Your task to perform on an android device: turn off sleep mode Image 0: 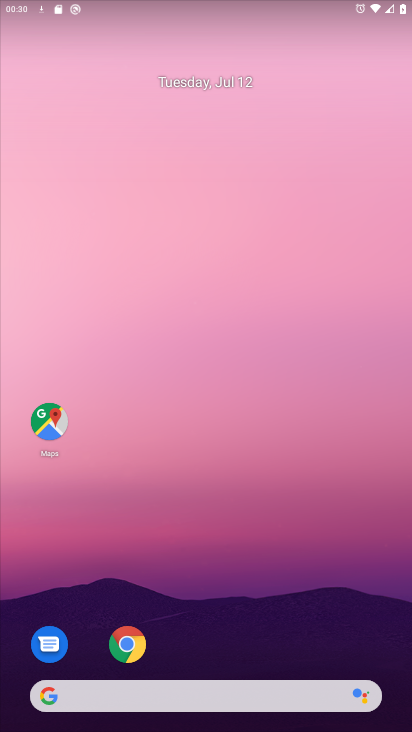
Step 0: drag from (154, 656) to (227, 208)
Your task to perform on an android device: turn off sleep mode Image 1: 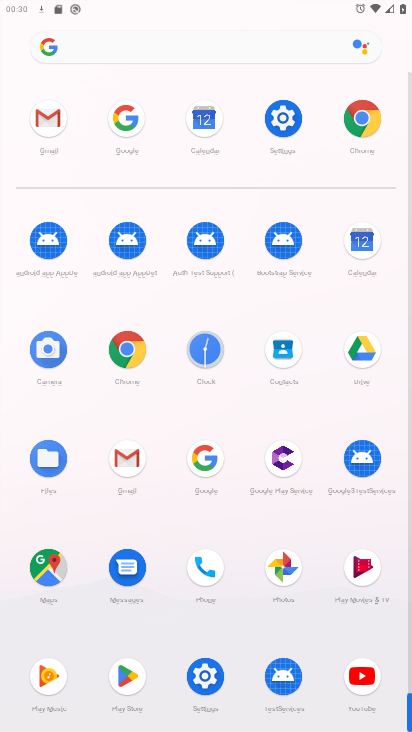
Step 1: click (267, 125)
Your task to perform on an android device: turn off sleep mode Image 2: 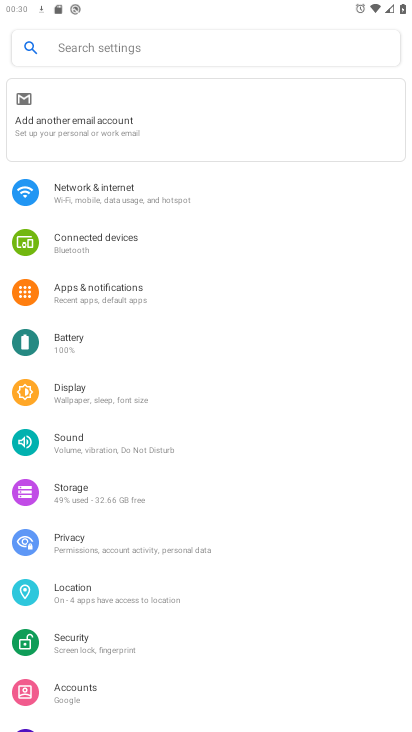
Step 2: task complete